Your task to perform on an android device: open app "Etsy: Buy & Sell Unique Items" (install if not already installed) and enter user name: "camp@inbox.com" and password: "unrelated" Image 0: 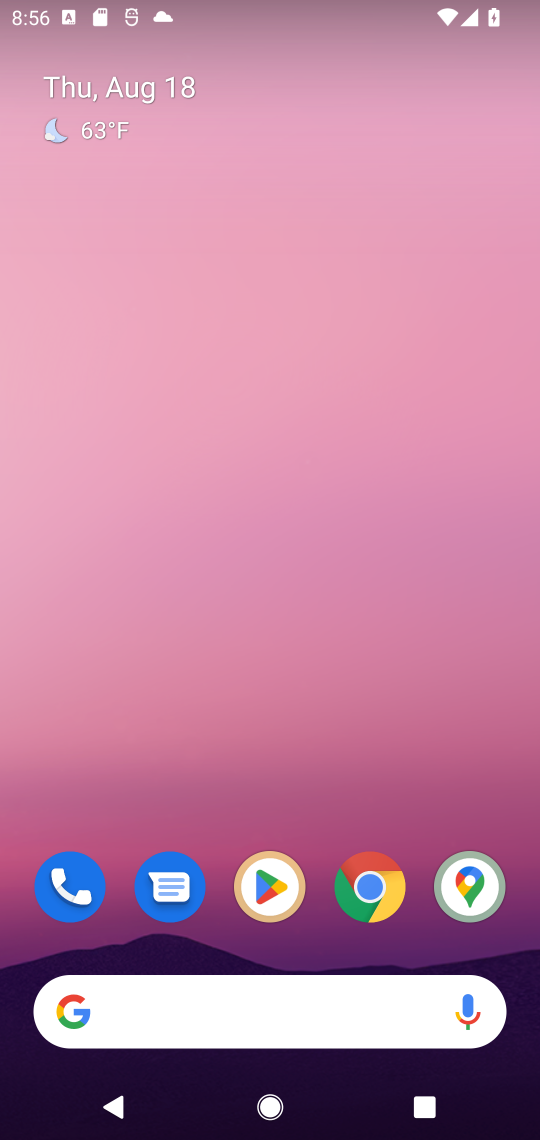
Step 0: click (273, 891)
Your task to perform on an android device: open app "Etsy: Buy & Sell Unique Items" (install if not already installed) and enter user name: "camp@inbox.com" and password: "unrelated" Image 1: 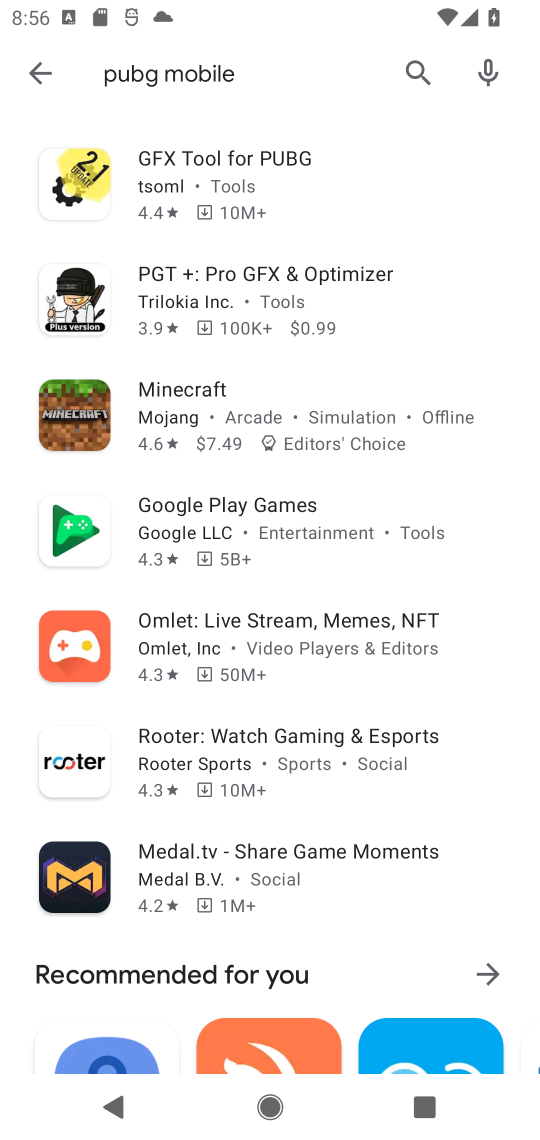
Step 1: click (406, 64)
Your task to perform on an android device: open app "Etsy: Buy & Sell Unique Items" (install if not already installed) and enter user name: "camp@inbox.com" and password: "unrelated" Image 2: 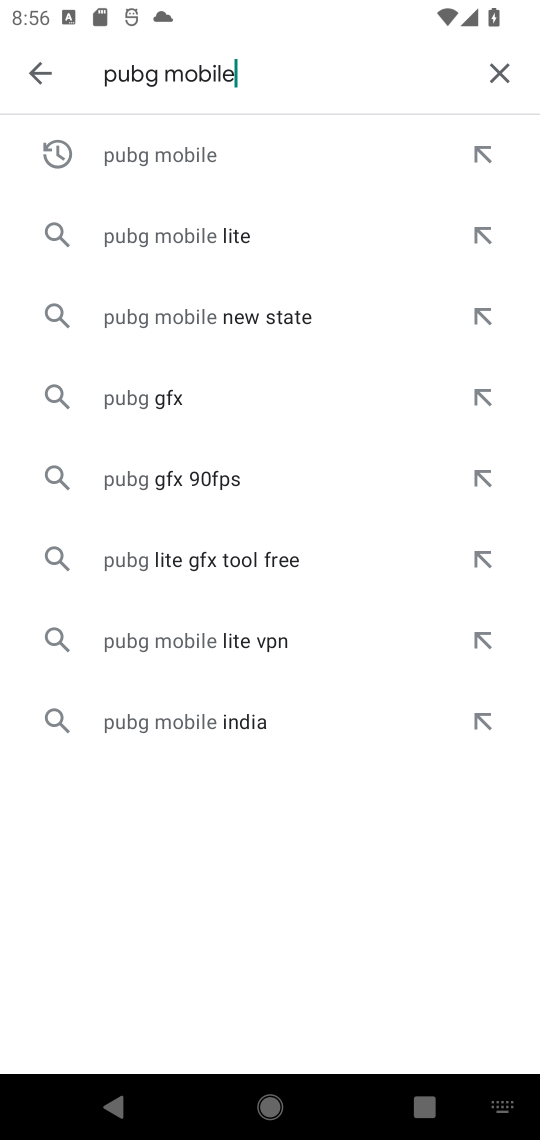
Step 2: click (494, 63)
Your task to perform on an android device: open app "Etsy: Buy & Sell Unique Items" (install if not already installed) and enter user name: "camp@inbox.com" and password: "unrelated" Image 3: 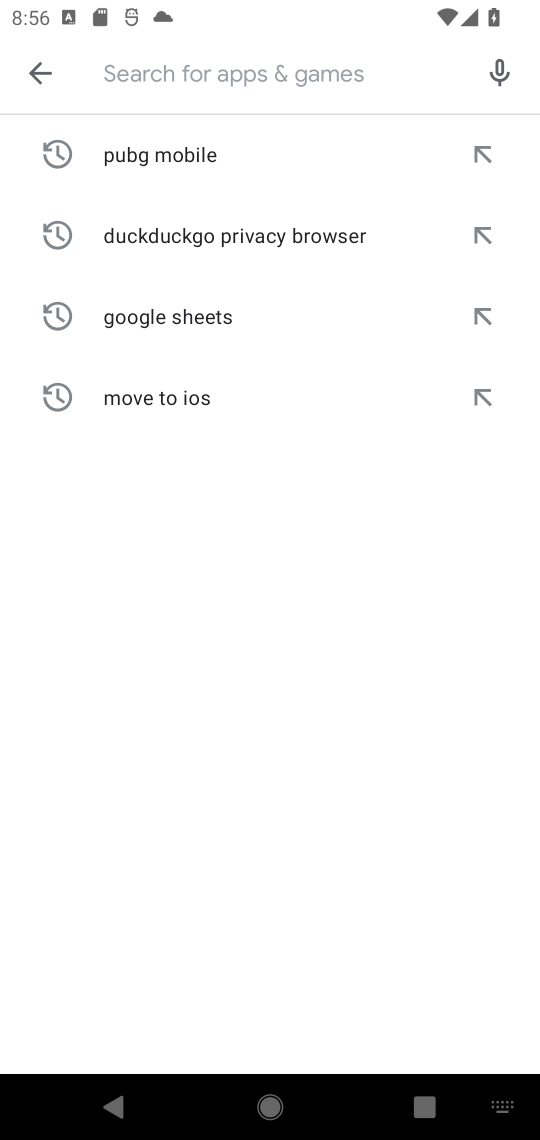
Step 3: type "Etsy: Buy & Sell Unique Item"
Your task to perform on an android device: open app "Etsy: Buy & Sell Unique Items" (install if not already installed) and enter user name: "camp@inbox.com" and password: "unrelated" Image 4: 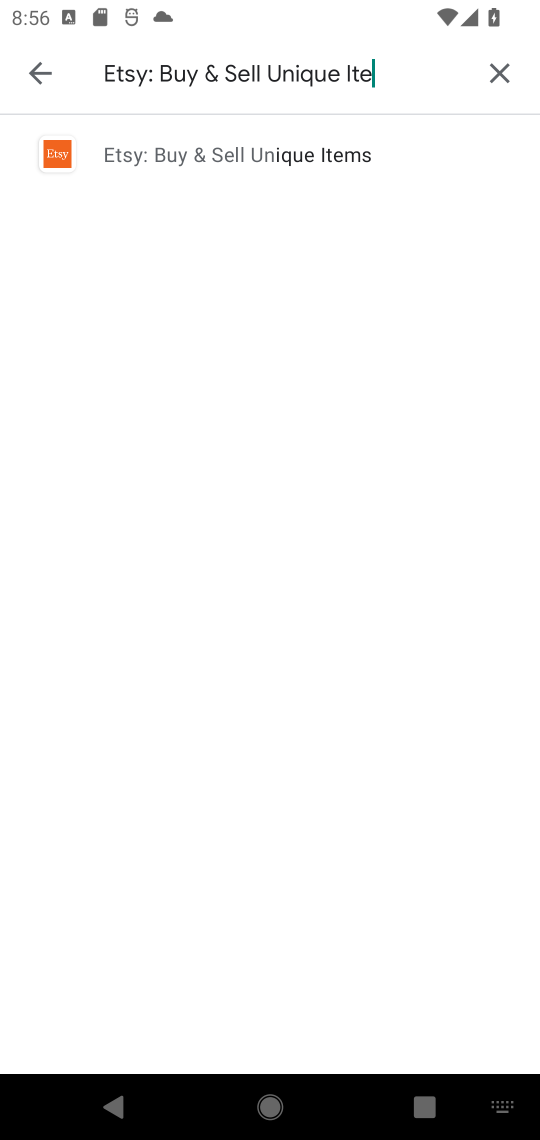
Step 4: type ""
Your task to perform on an android device: open app "Etsy: Buy & Sell Unique Items" (install if not already installed) and enter user name: "camp@inbox.com" and password: "unrelated" Image 5: 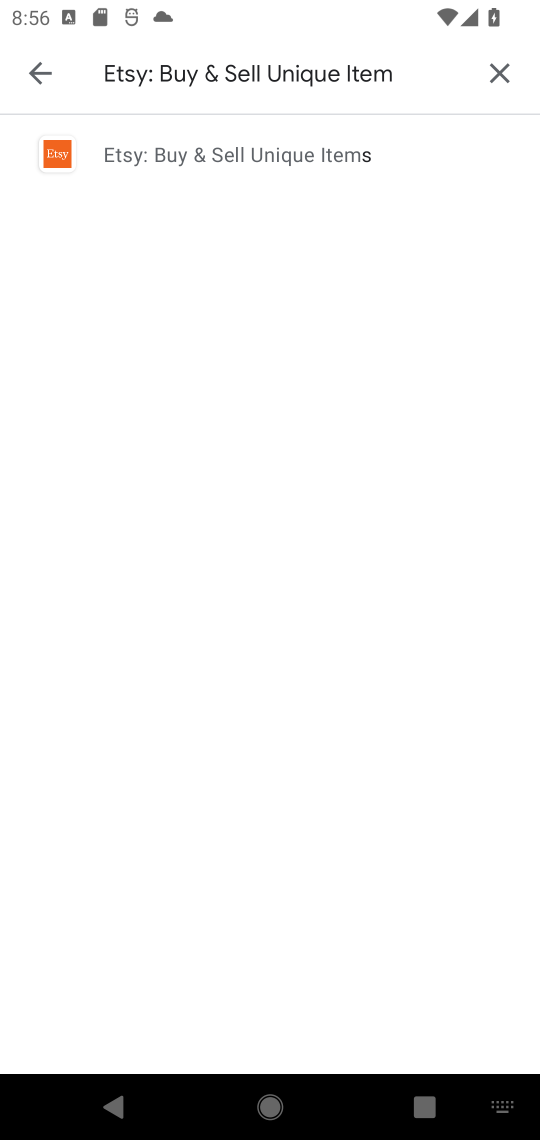
Step 5: click (193, 155)
Your task to perform on an android device: open app "Etsy: Buy & Sell Unique Items" (install if not already installed) and enter user name: "camp@inbox.com" and password: "unrelated" Image 6: 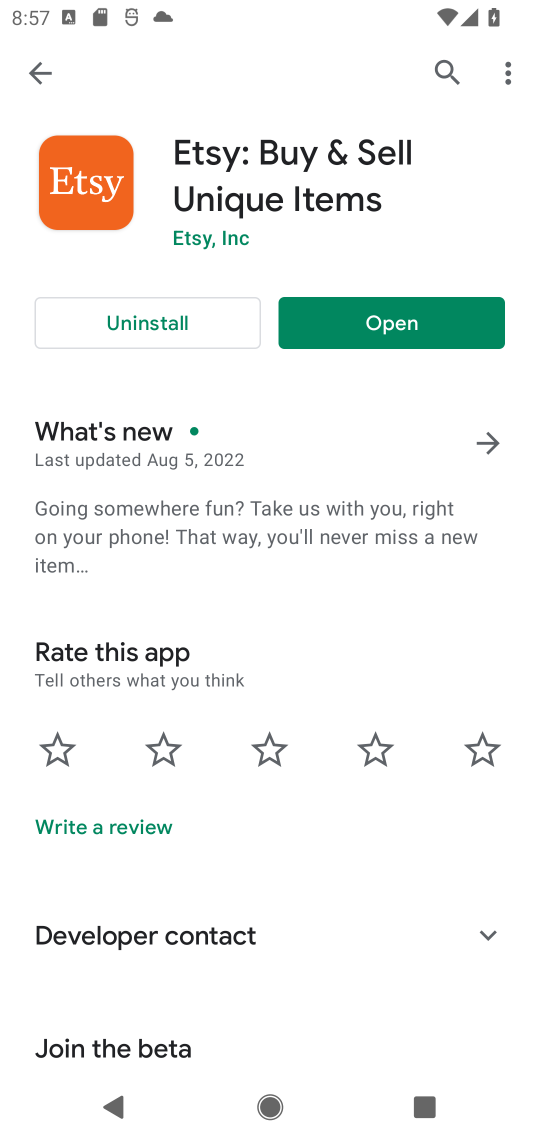
Step 6: click (393, 324)
Your task to perform on an android device: open app "Etsy: Buy & Sell Unique Items" (install if not already installed) and enter user name: "camp@inbox.com" and password: "unrelated" Image 7: 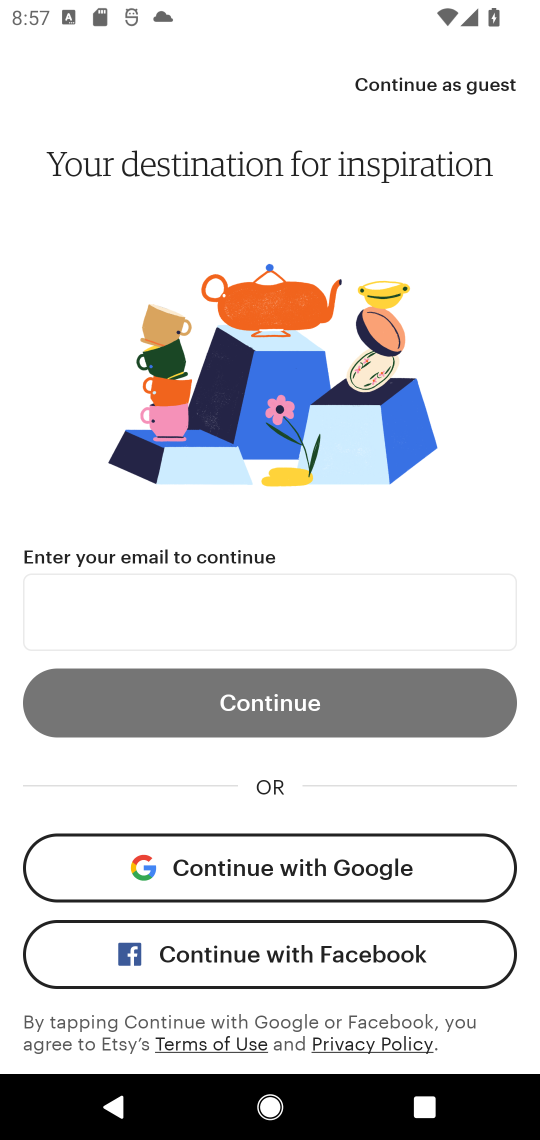
Step 7: click (239, 619)
Your task to perform on an android device: open app "Etsy: Buy & Sell Unique Items" (install if not already installed) and enter user name: "camp@inbox.com" and password: "unrelated" Image 8: 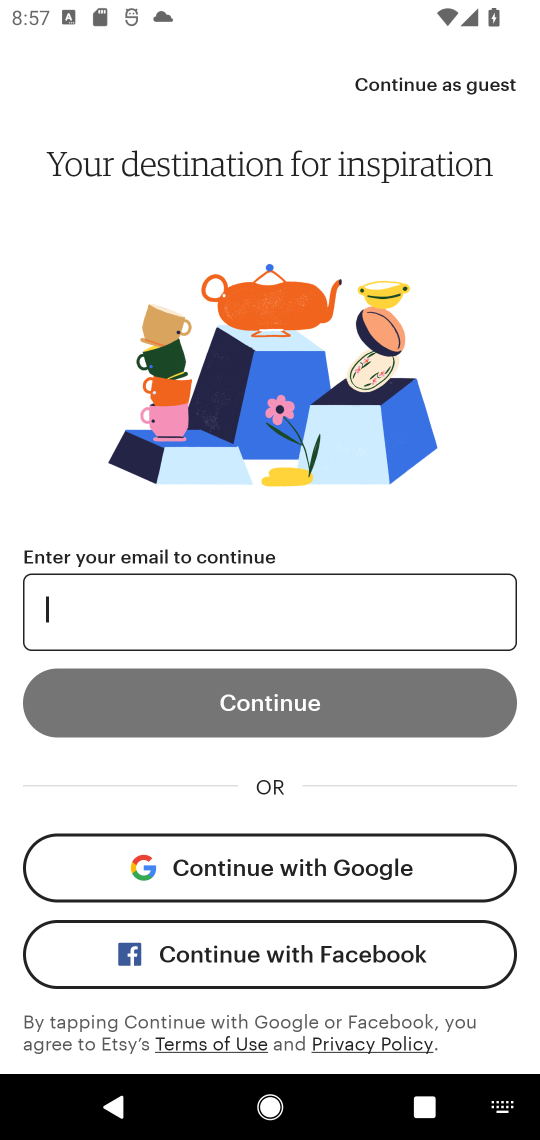
Step 8: type "camp@inbox.com"
Your task to perform on an android device: open app "Etsy: Buy & Sell Unique Items" (install if not already installed) and enter user name: "camp@inbox.com" and password: "unrelated" Image 9: 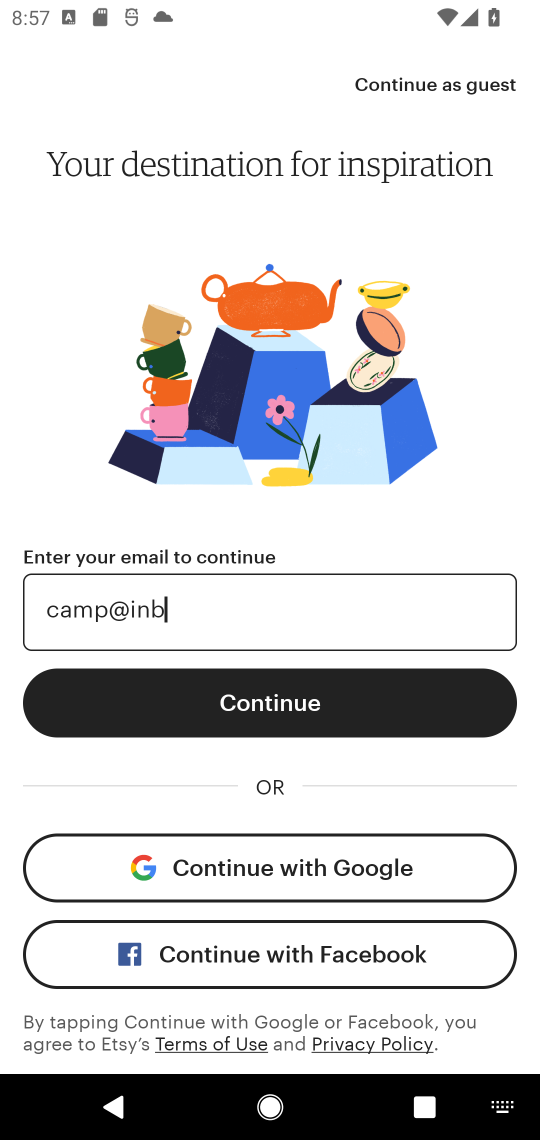
Step 9: type ""
Your task to perform on an android device: open app "Etsy: Buy & Sell Unique Items" (install if not already installed) and enter user name: "camp@inbox.com" and password: "unrelated" Image 10: 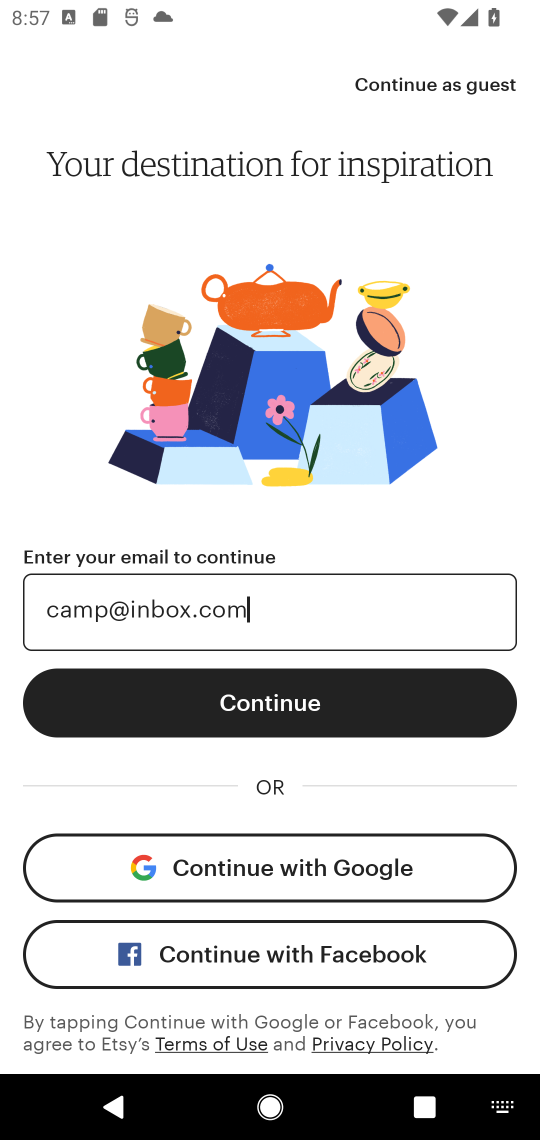
Step 10: click (293, 712)
Your task to perform on an android device: open app "Etsy: Buy & Sell Unique Items" (install if not already installed) and enter user name: "camp@inbox.com" and password: "unrelated" Image 11: 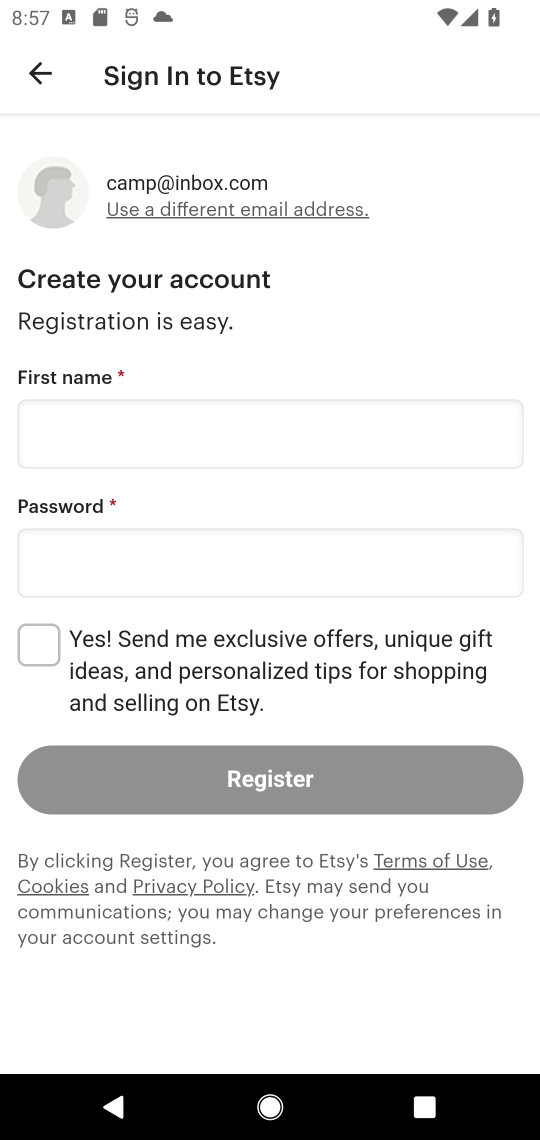
Step 11: click (154, 426)
Your task to perform on an android device: open app "Etsy: Buy & Sell Unique Items" (install if not already installed) and enter user name: "camp@inbox.com" and password: "unrelated" Image 12: 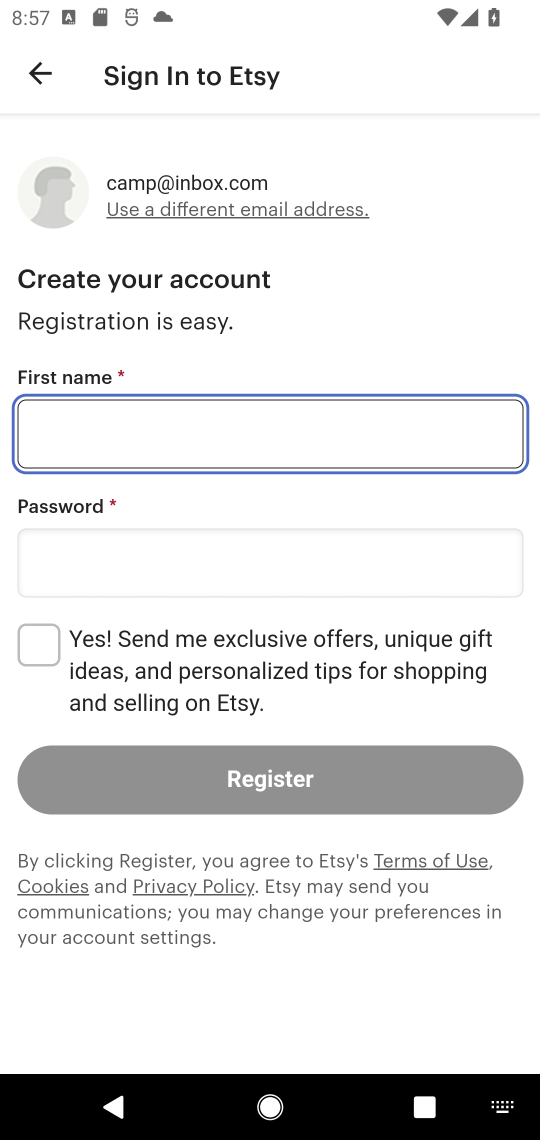
Step 12: type "camp@inbox.com"
Your task to perform on an android device: open app "Etsy: Buy & Sell Unique Items" (install if not already installed) and enter user name: "camp@inbox.com" and password: "unrelated" Image 13: 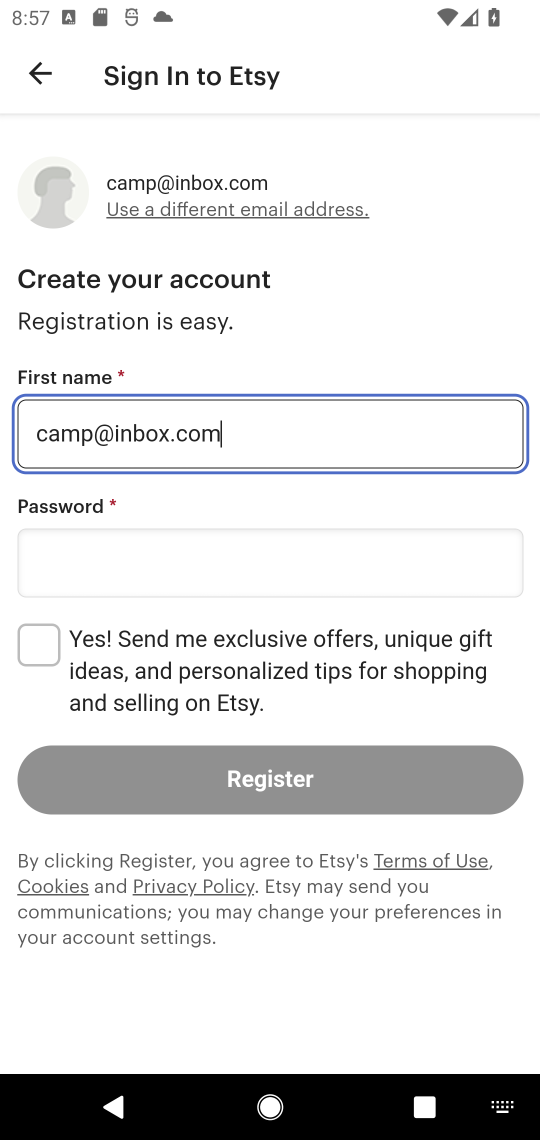
Step 13: click (137, 572)
Your task to perform on an android device: open app "Etsy: Buy & Sell Unique Items" (install if not already installed) and enter user name: "camp@inbox.com" and password: "unrelated" Image 14: 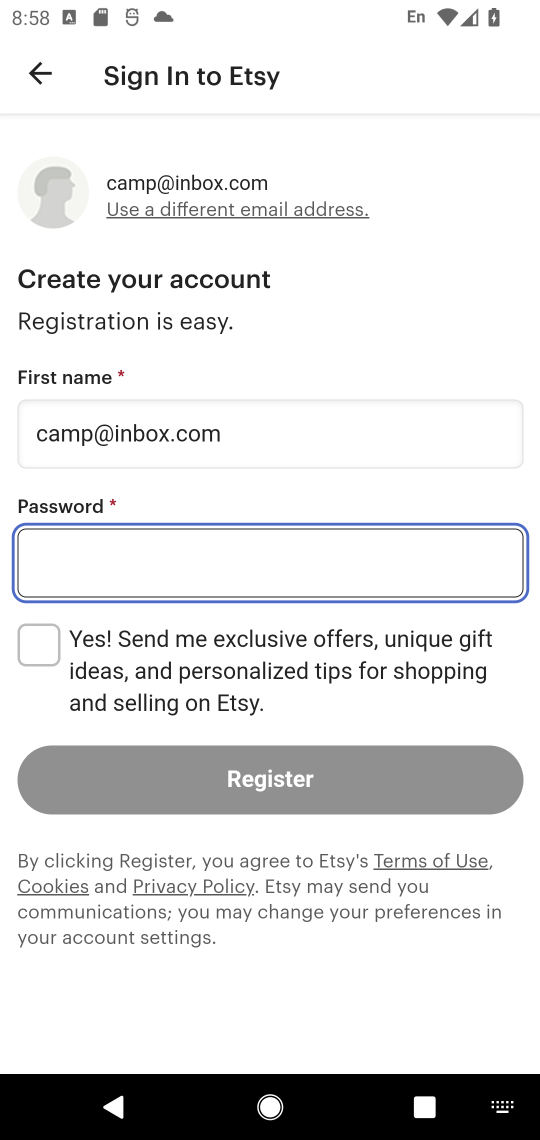
Step 14: type "unrelated"
Your task to perform on an android device: open app "Etsy: Buy & Sell Unique Items" (install if not already installed) and enter user name: "camp@inbox.com" and password: "unrelated" Image 15: 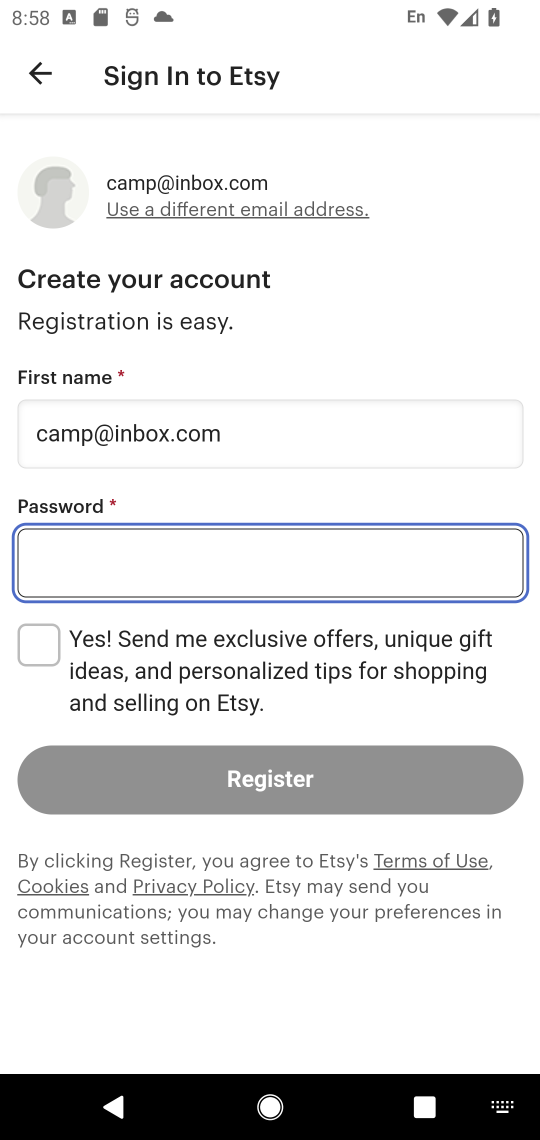
Step 15: type ""
Your task to perform on an android device: open app "Etsy: Buy & Sell Unique Items" (install if not already installed) and enter user name: "camp@inbox.com" and password: "unrelated" Image 16: 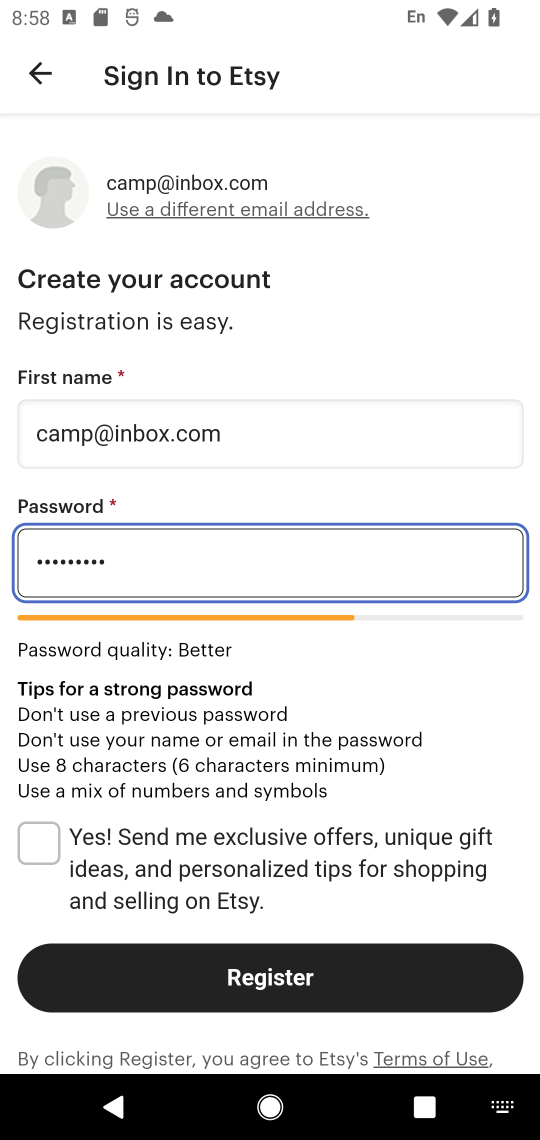
Step 16: task complete